Your task to perform on an android device: Go to eBay Image 0: 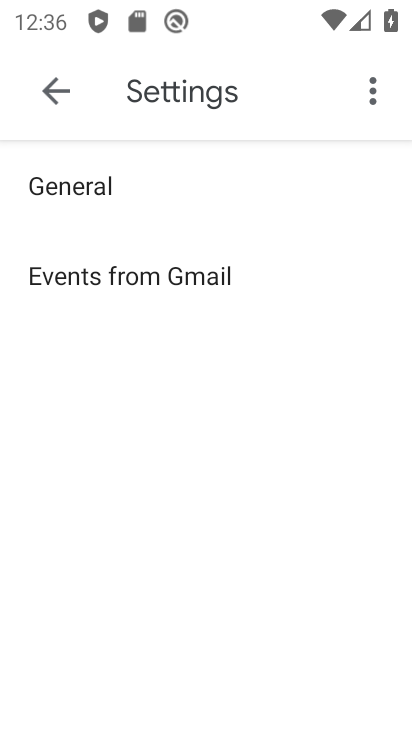
Step 0: press home button
Your task to perform on an android device: Go to eBay Image 1: 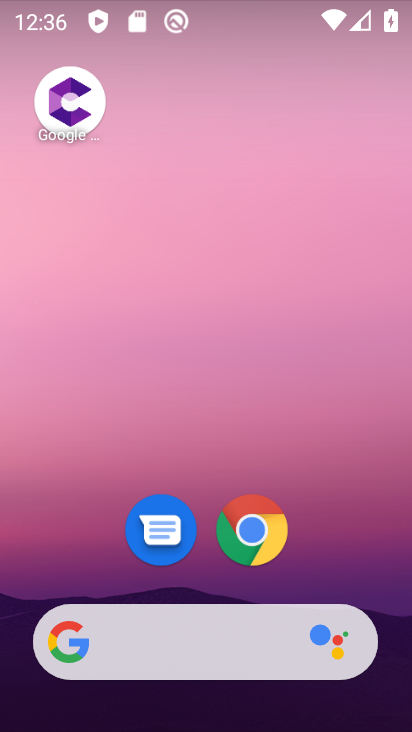
Step 1: drag from (186, 600) to (209, 4)
Your task to perform on an android device: Go to eBay Image 2: 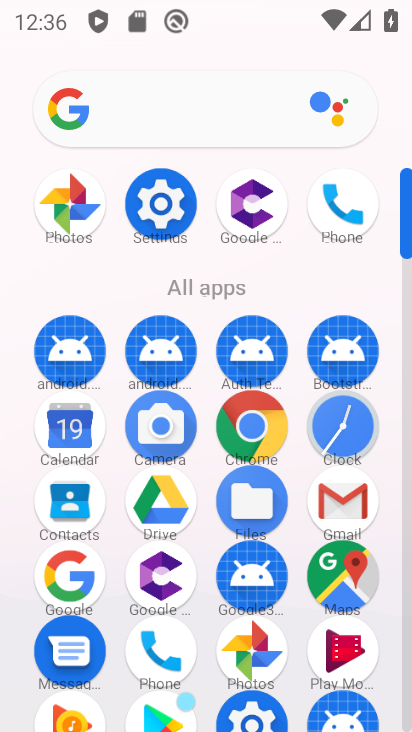
Step 2: click (232, 434)
Your task to perform on an android device: Go to eBay Image 3: 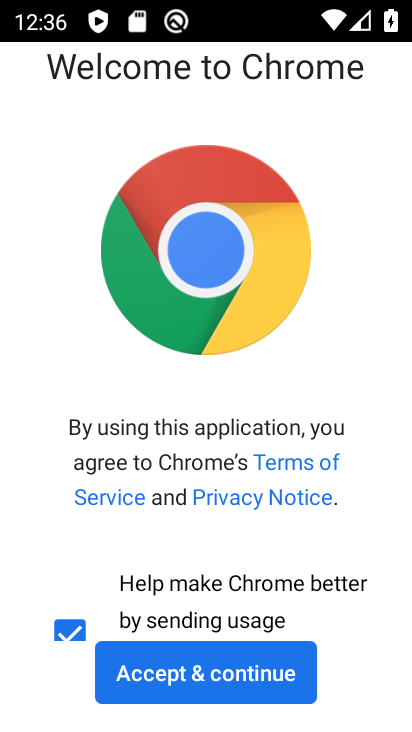
Step 3: click (170, 654)
Your task to perform on an android device: Go to eBay Image 4: 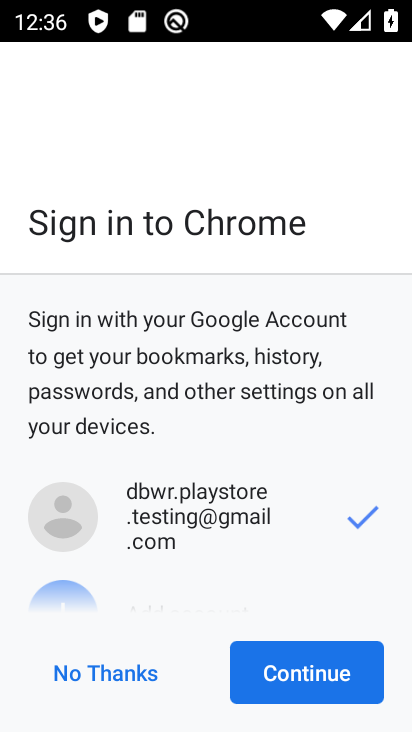
Step 4: click (291, 656)
Your task to perform on an android device: Go to eBay Image 5: 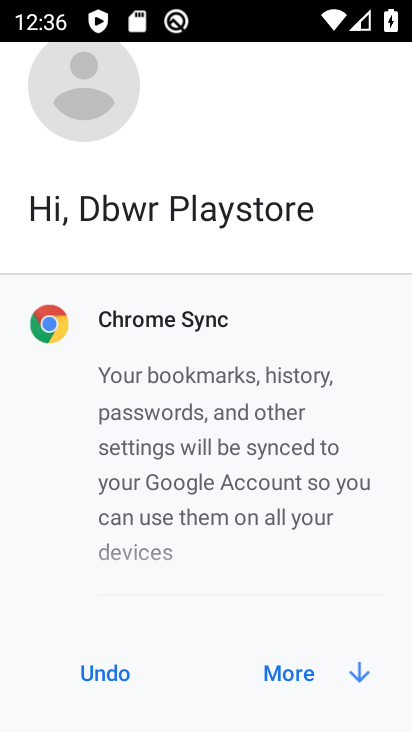
Step 5: click (314, 667)
Your task to perform on an android device: Go to eBay Image 6: 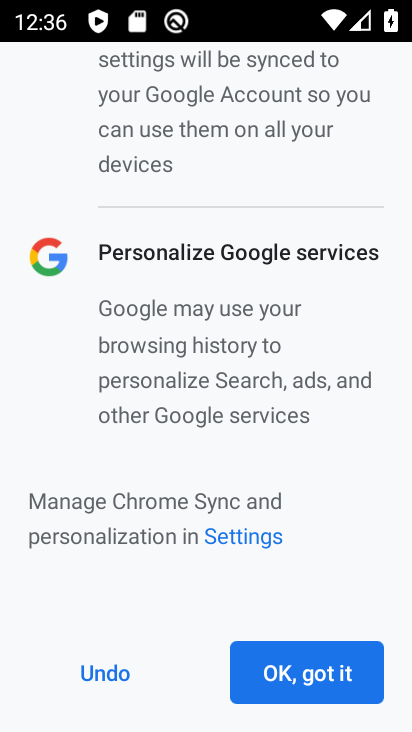
Step 6: click (301, 667)
Your task to perform on an android device: Go to eBay Image 7: 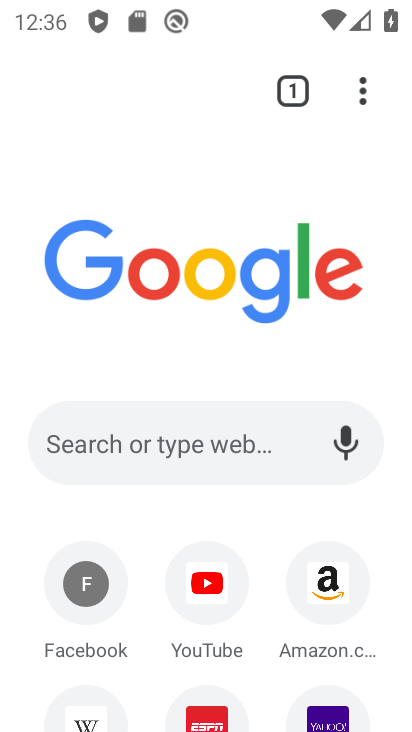
Step 7: click (234, 482)
Your task to perform on an android device: Go to eBay Image 8: 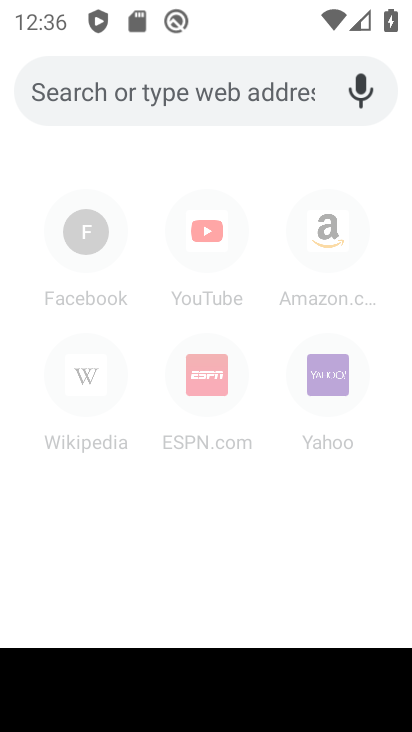
Step 8: type "ebay"
Your task to perform on an android device: Go to eBay Image 9: 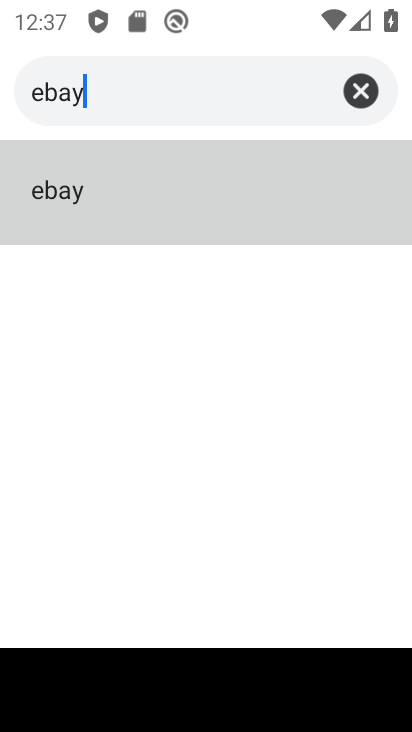
Step 9: type ""
Your task to perform on an android device: Go to eBay Image 10: 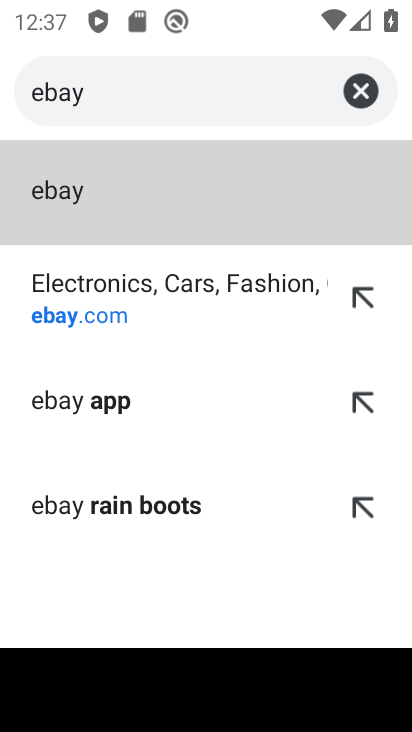
Step 10: click (34, 322)
Your task to perform on an android device: Go to eBay Image 11: 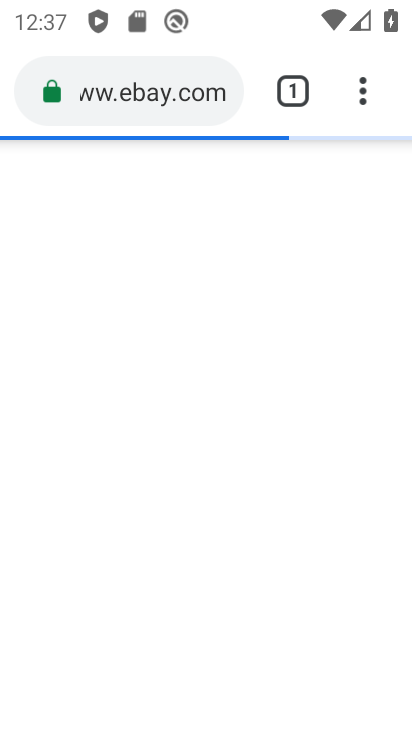
Step 11: task complete